Your task to perform on an android device: Install the Pandora app Image 0: 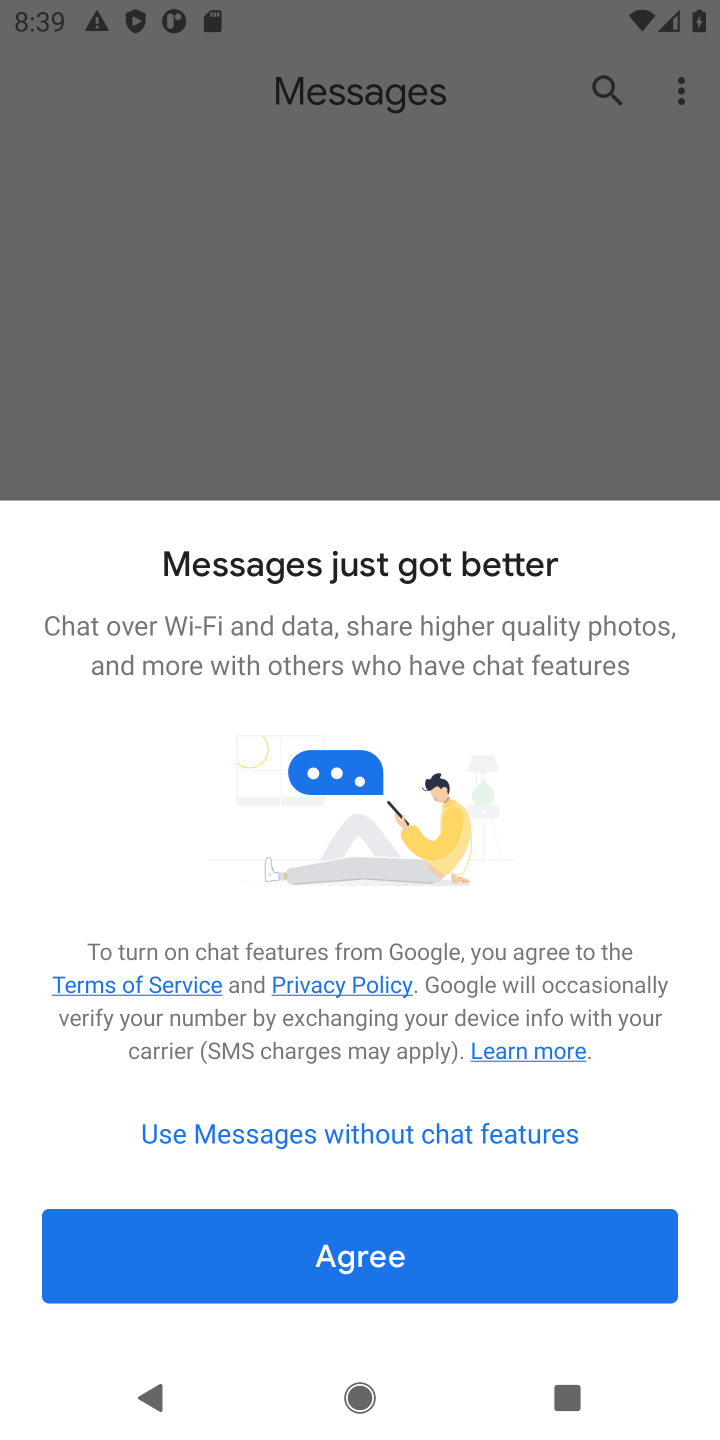
Step 0: press home button
Your task to perform on an android device: Install the Pandora app Image 1: 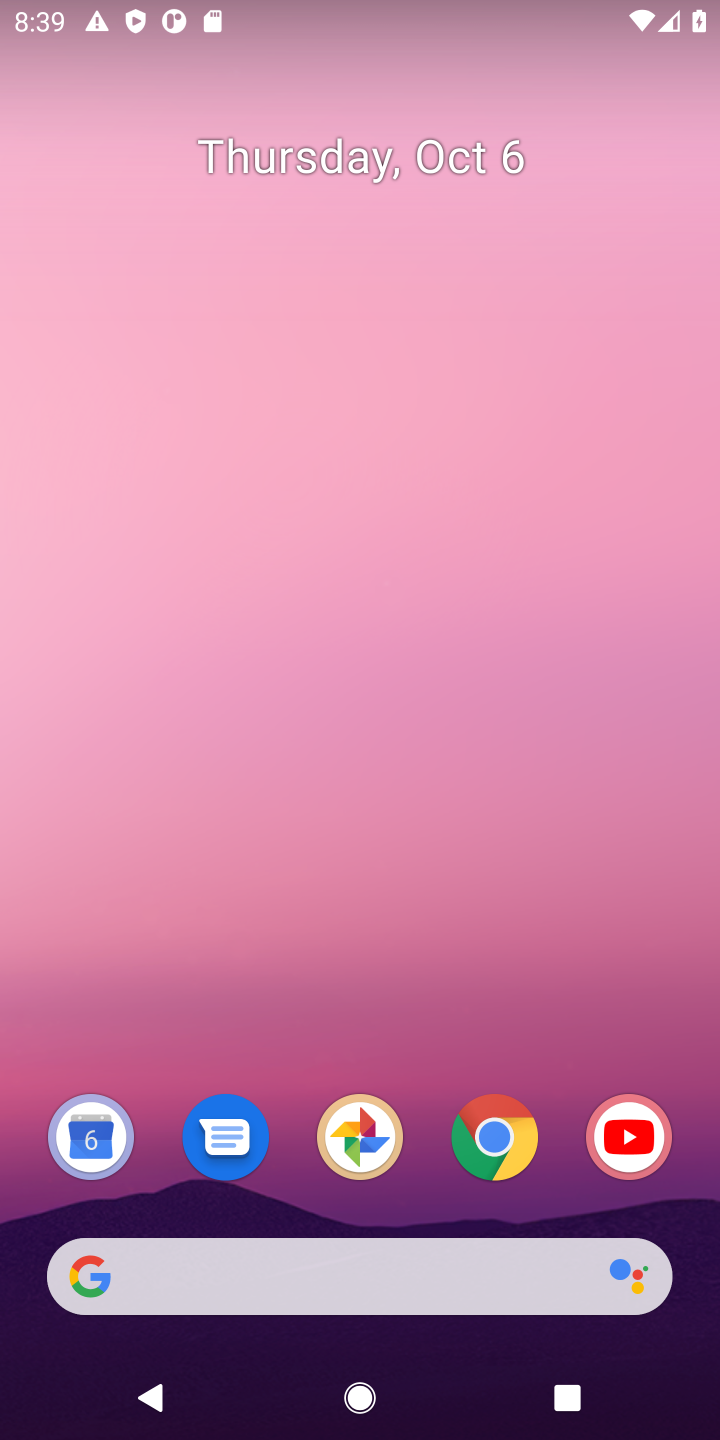
Step 1: drag from (462, 1092) to (484, 95)
Your task to perform on an android device: Install the Pandora app Image 2: 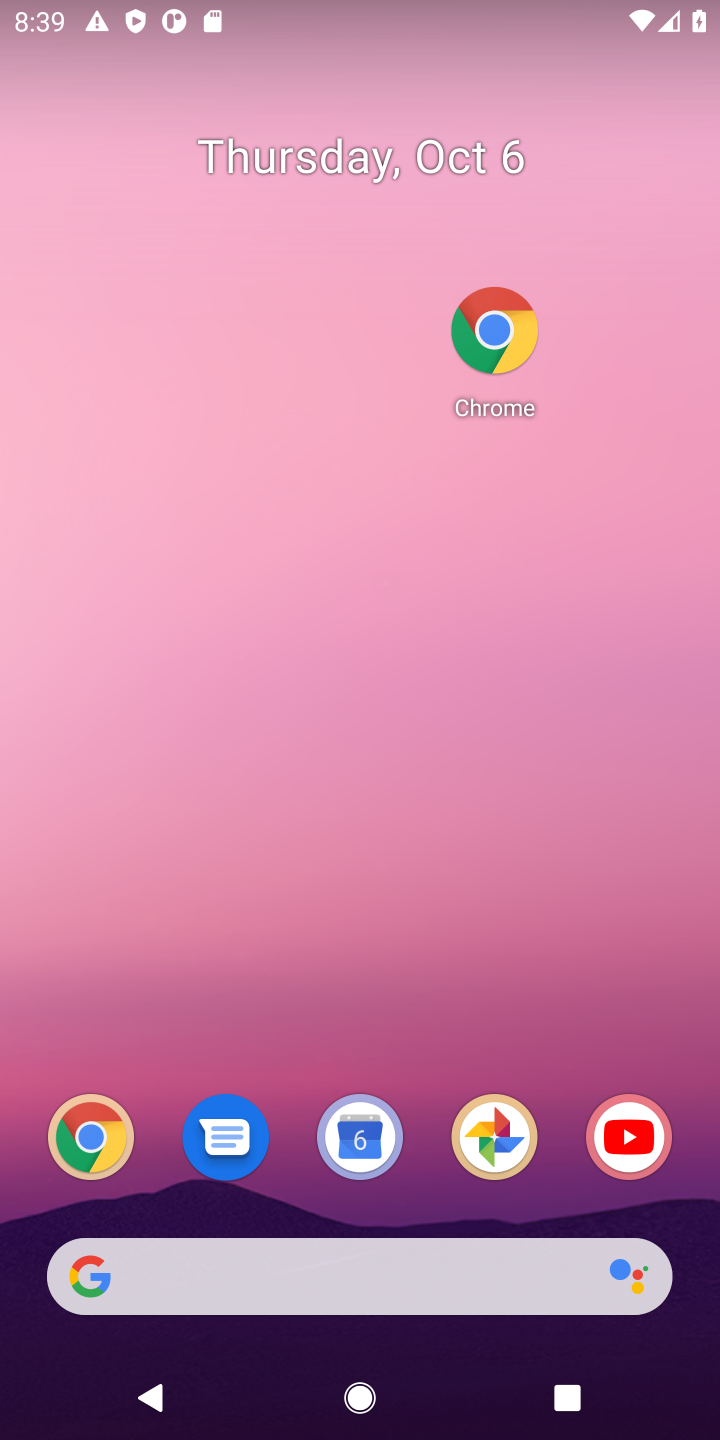
Step 2: drag from (413, 1097) to (490, 14)
Your task to perform on an android device: Install the Pandora app Image 3: 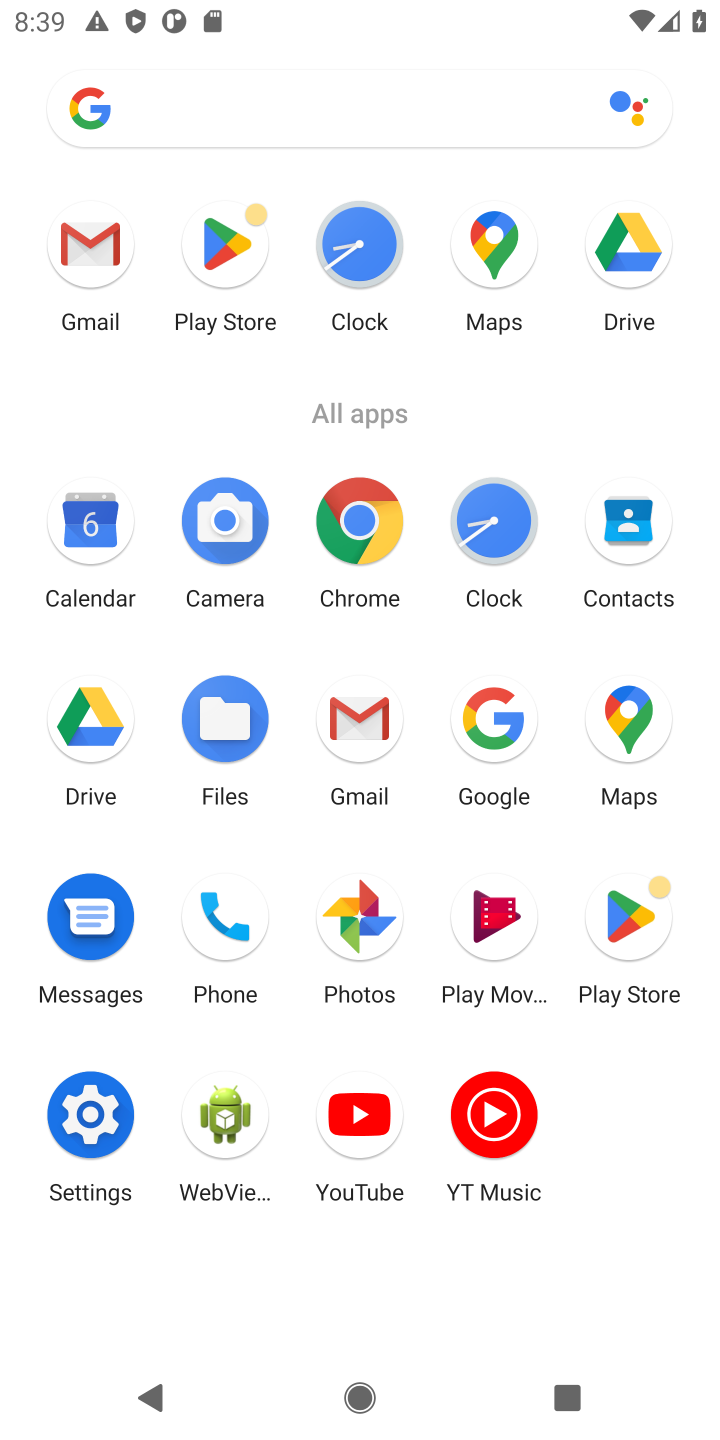
Step 3: click (619, 936)
Your task to perform on an android device: Install the Pandora app Image 4: 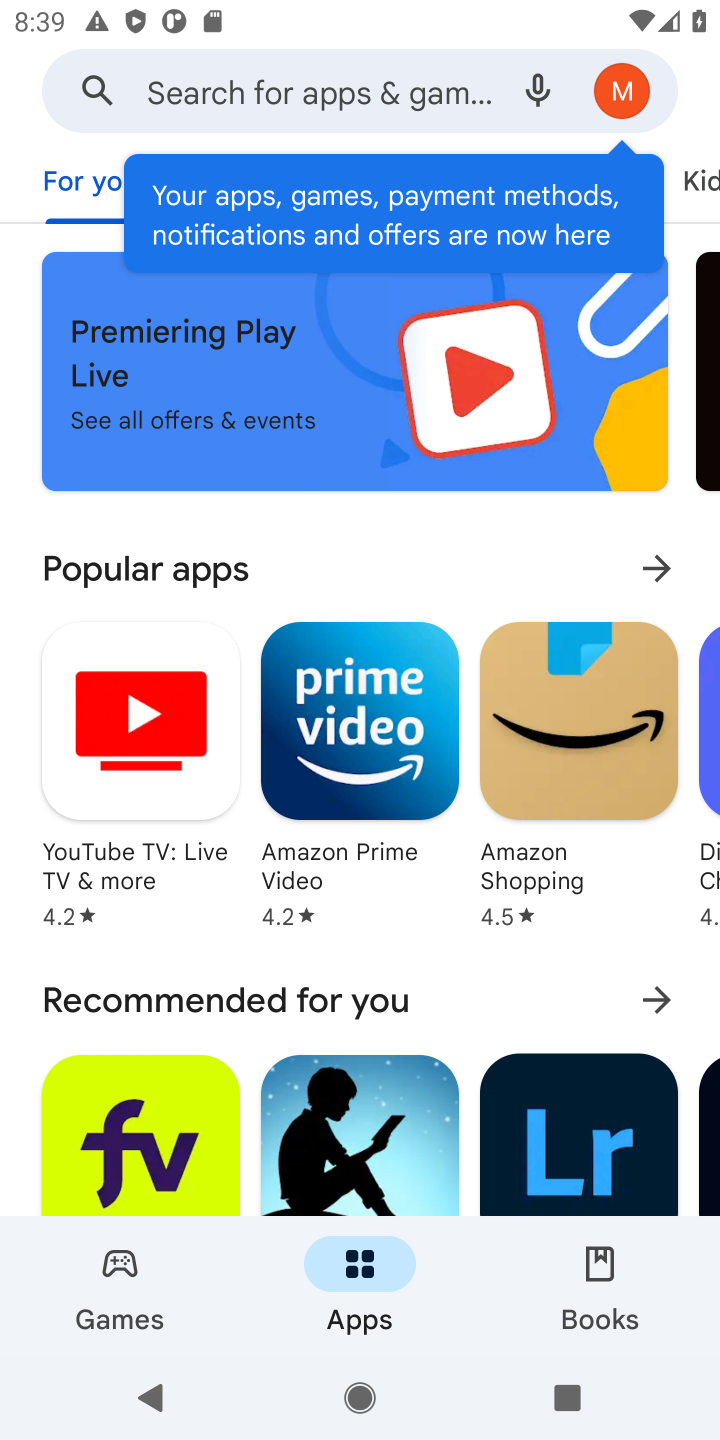
Step 4: click (208, 98)
Your task to perform on an android device: Install the Pandora app Image 5: 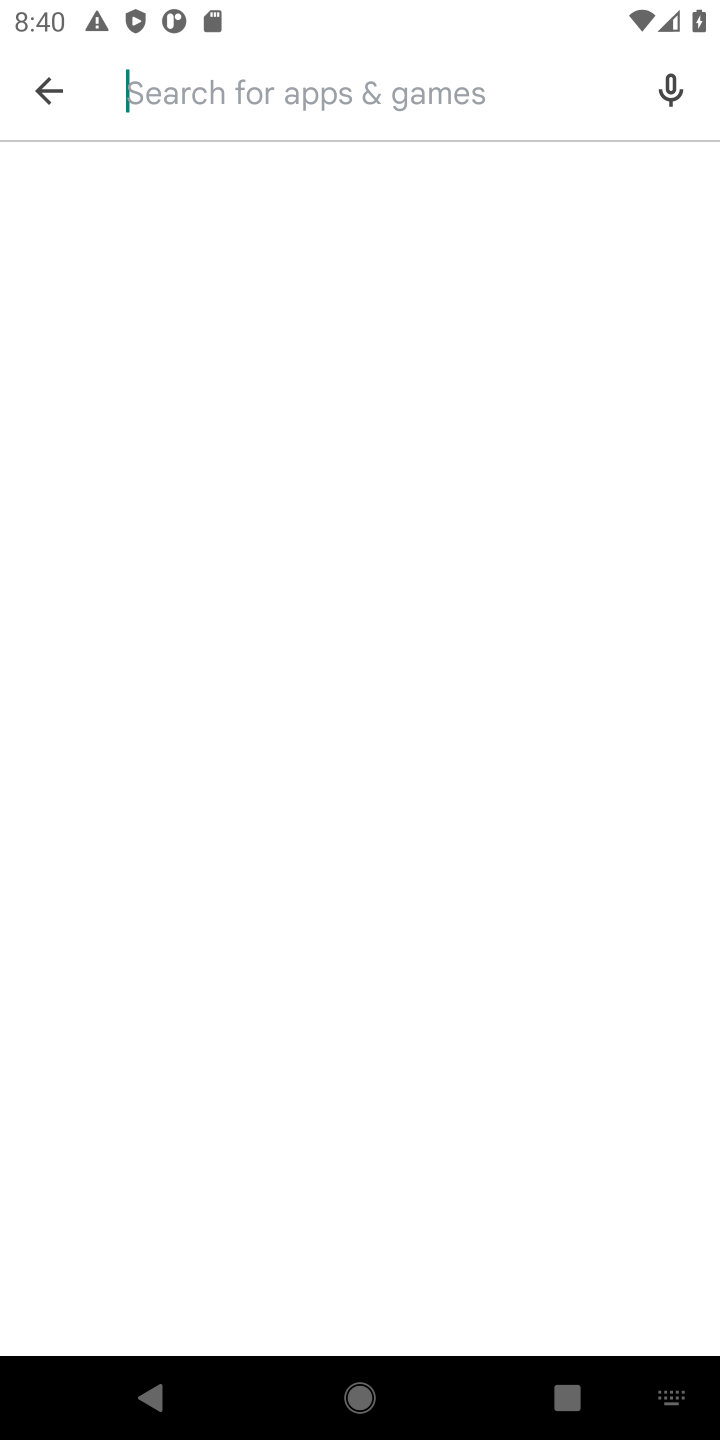
Step 5: type "pandora app"
Your task to perform on an android device: Install the Pandora app Image 6: 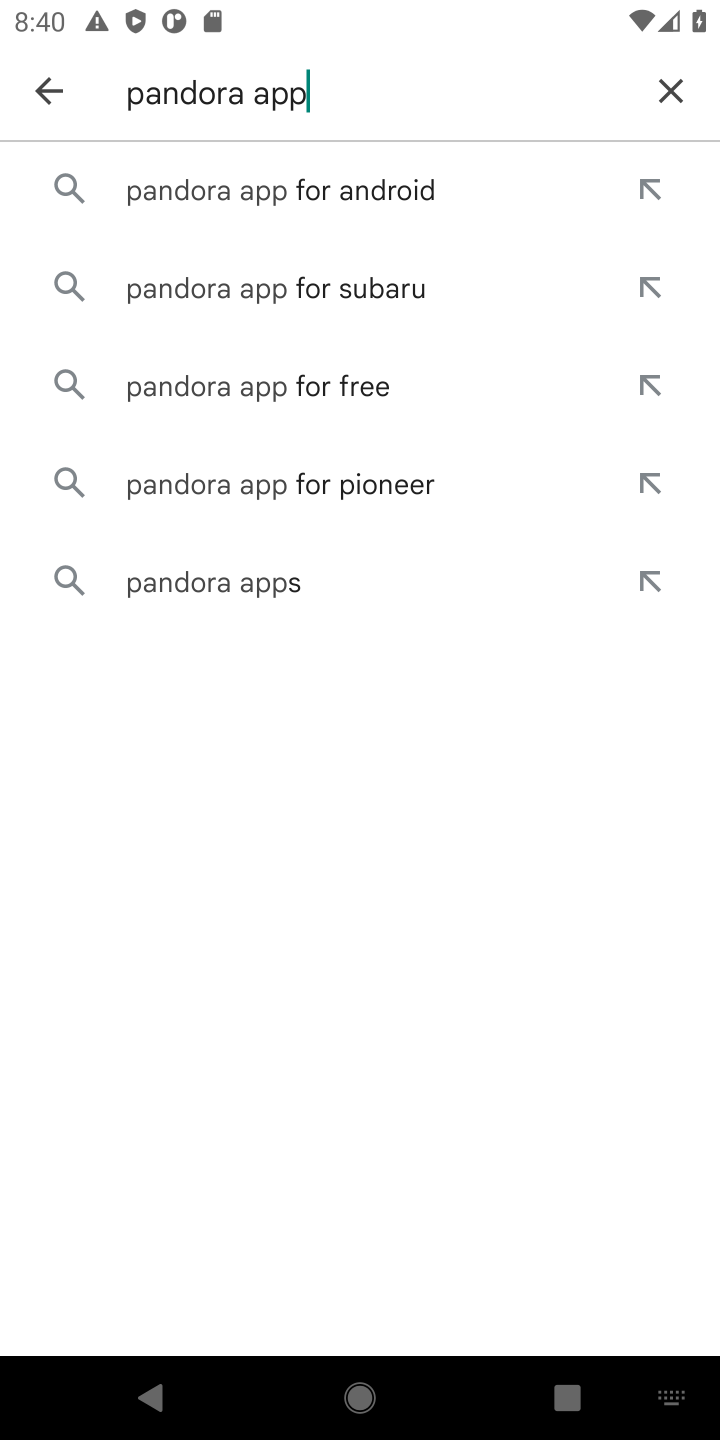
Step 6: click (243, 195)
Your task to perform on an android device: Install the Pandora app Image 7: 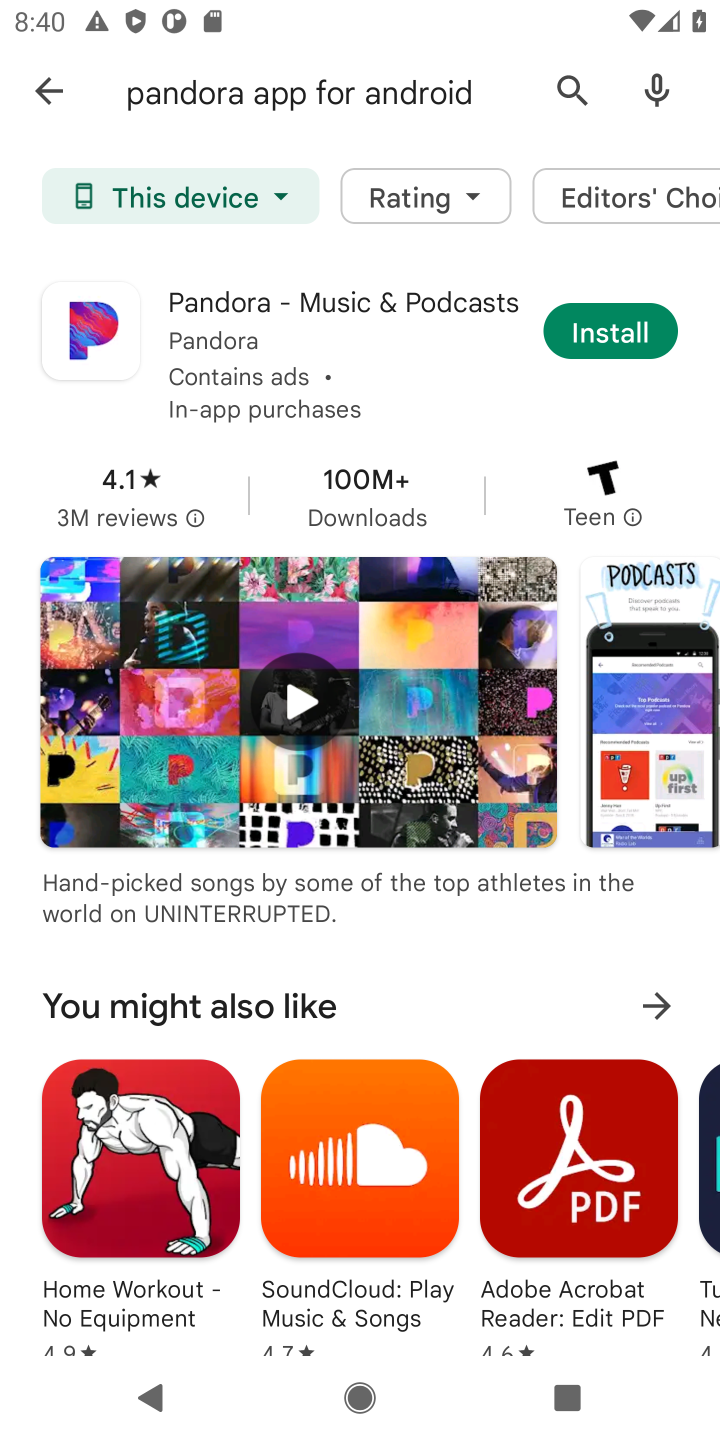
Step 7: click (603, 340)
Your task to perform on an android device: Install the Pandora app Image 8: 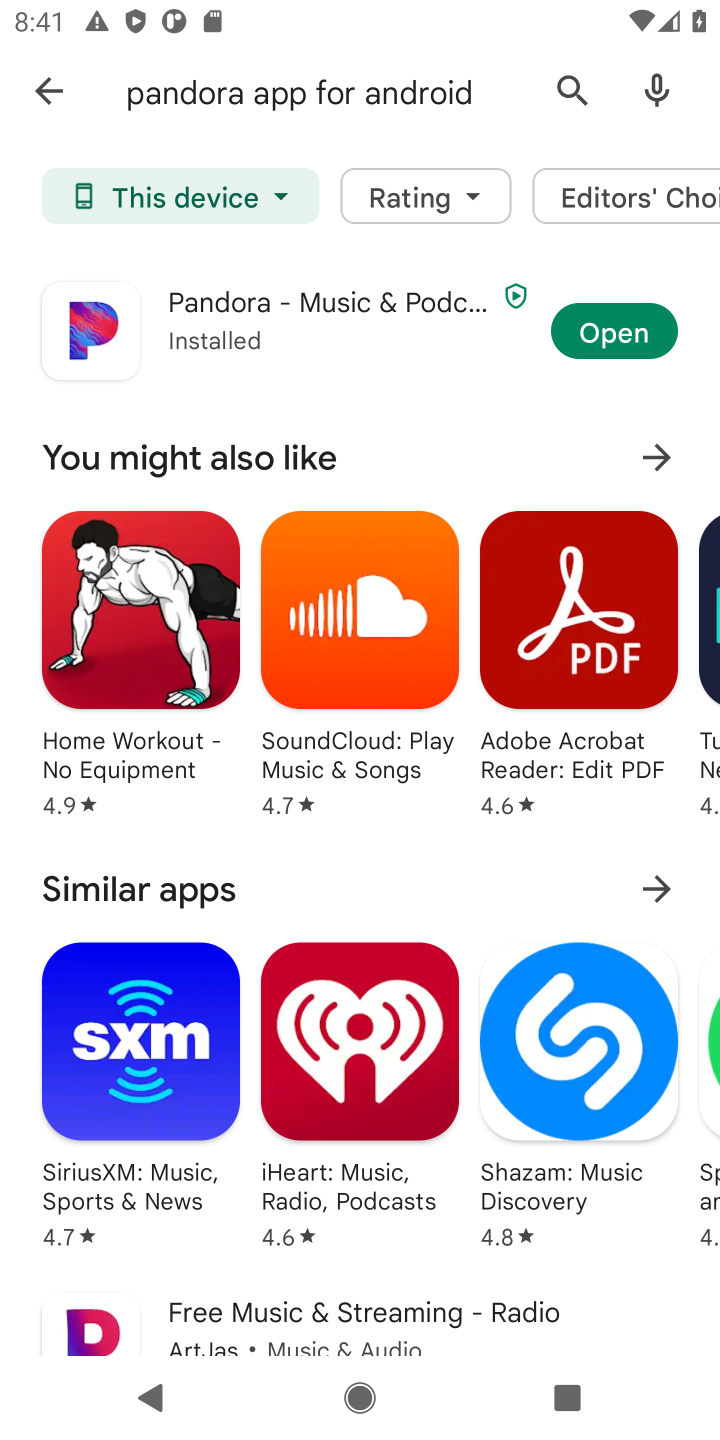
Step 8: task complete